Your task to perform on an android device: Open ESPN.com Image 0: 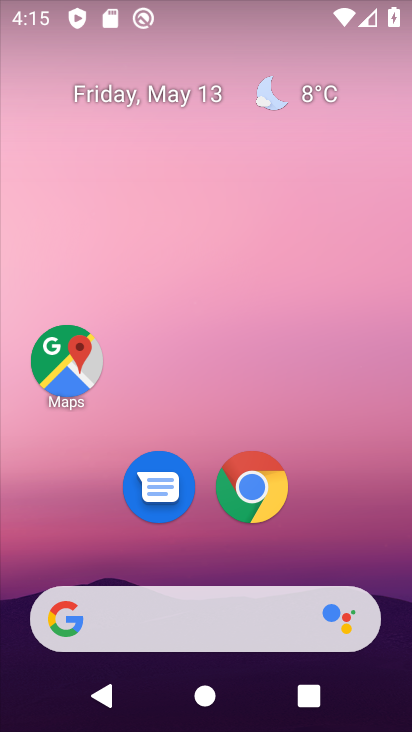
Step 0: click (266, 497)
Your task to perform on an android device: Open ESPN.com Image 1: 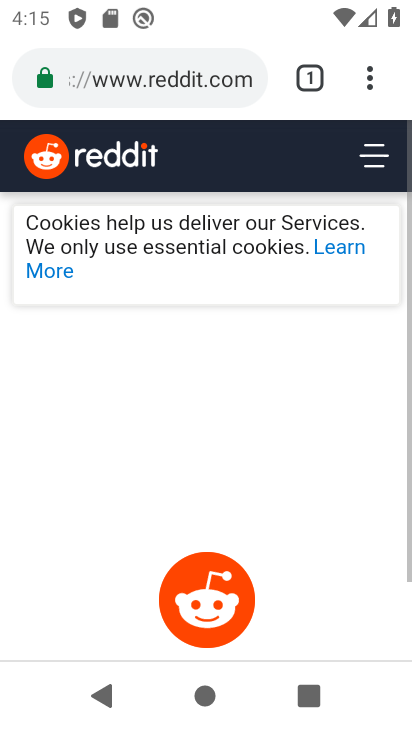
Step 1: click (222, 60)
Your task to perform on an android device: Open ESPN.com Image 2: 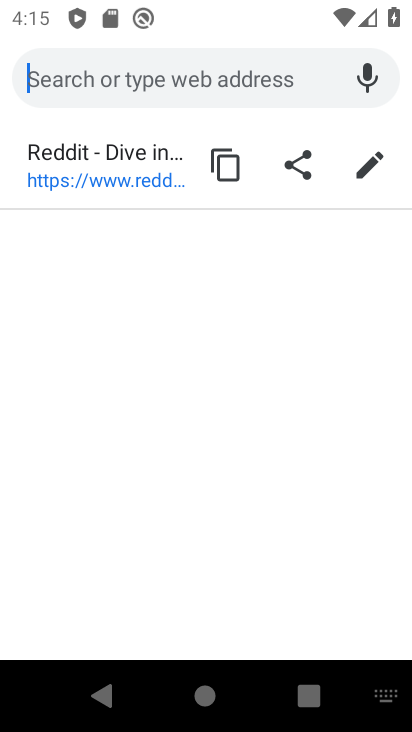
Step 2: type "espn"
Your task to perform on an android device: Open ESPN.com Image 3: 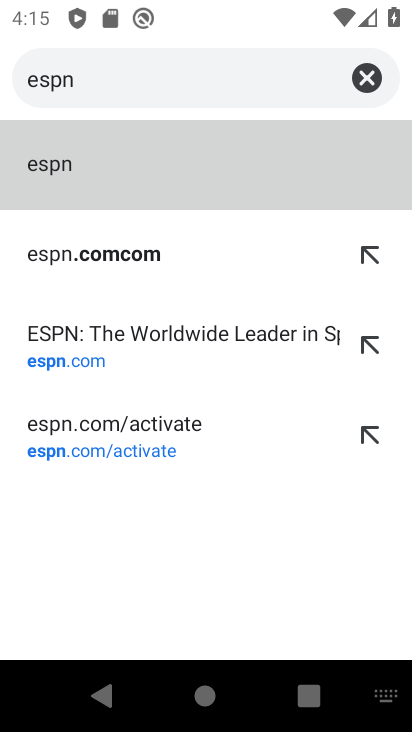
Step 3: click (152, 333)
Your task to perform on an android device: Open ESPN.com Image 4: 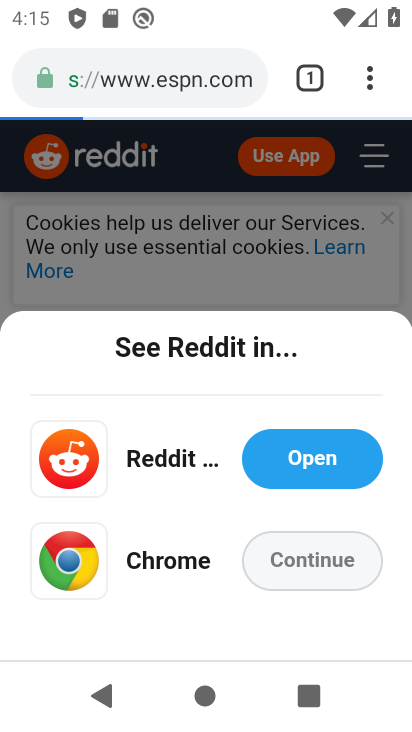
Step 4: task complete